Your task to perform on an android device: Go to CNN.com Image 0: 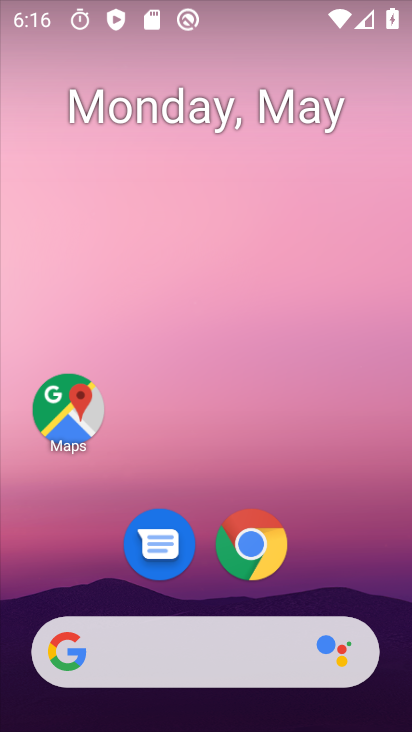
Step 0: click (261, 542)
Your task to perform on an android device: Go to CNN.com Image 1: 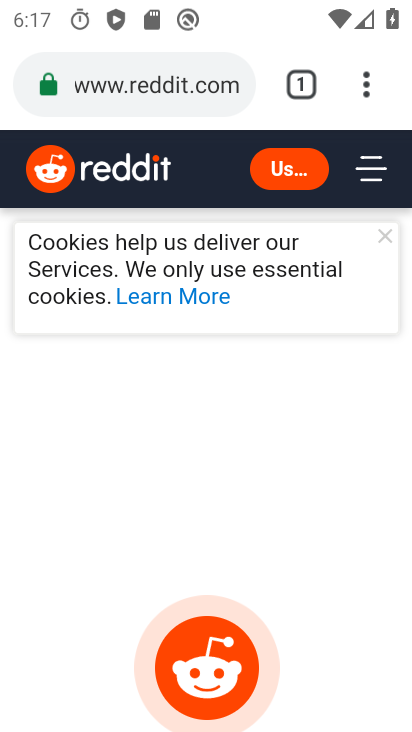
Step 1: click (283, 82)
Your task to perform on an android device: Go to CNN.com Image 2: 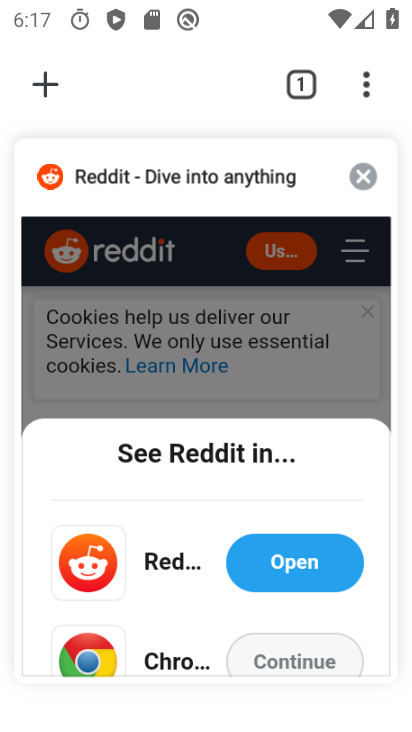
Step 2: click (34, 73)
Your task to perform on an android device: Go to CNN.com Image 3: 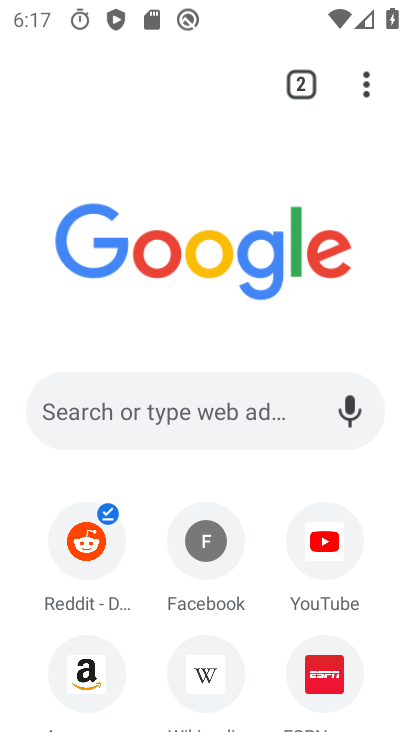
Step 3: type "CNN.com"
Your task to perform on an android device: Go to CNN.com Image 4: 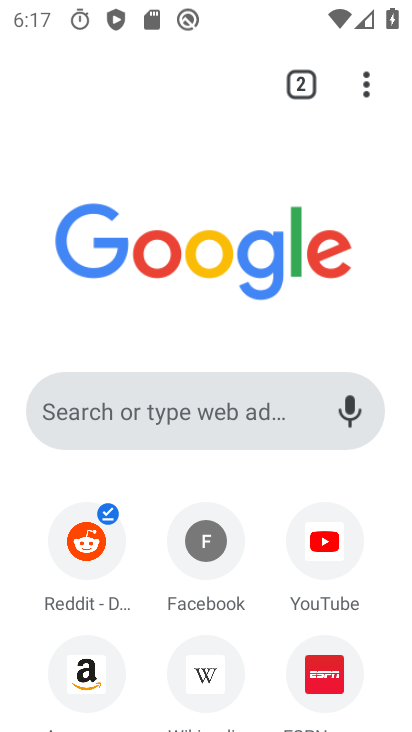
Step 4: click (193, 416)
Your task to perform on an android device: Go to CNN.com Image 5: 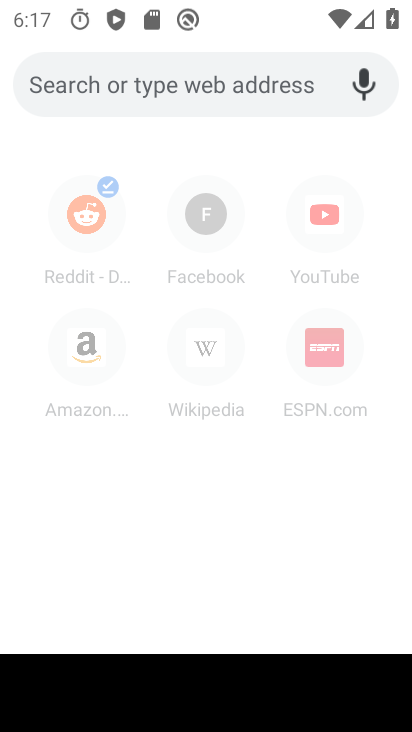
Step 5: type "CNN.com"
Your task to perform on an android device: Go to CNN.com Image 6: 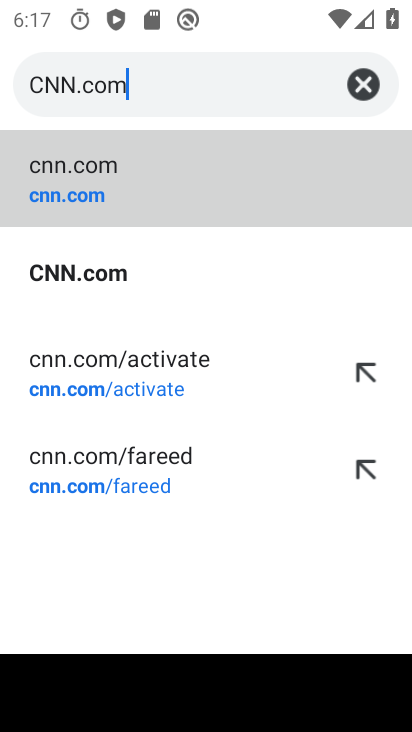
Step 6: click (161, 223)
Your task to perform on an android device: Go to CNN.com Image 7: 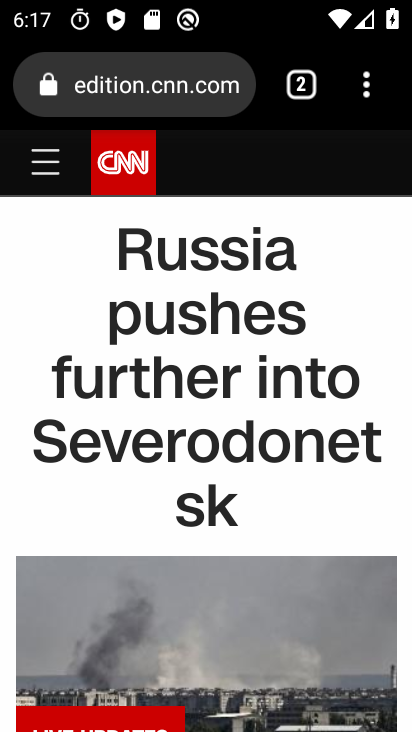
Step 7: task complete